Your task to perform on an android device: open chrome privacy settings Image 0: 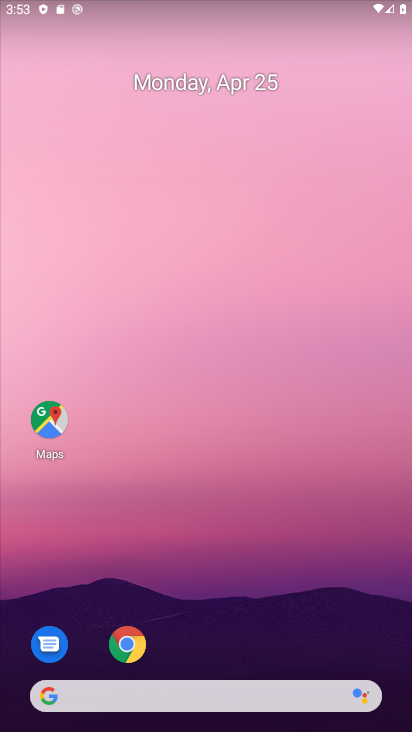
Step 0: click (123, 636)
Your task to perform on an android device: open chrome privacy settings Image 1: 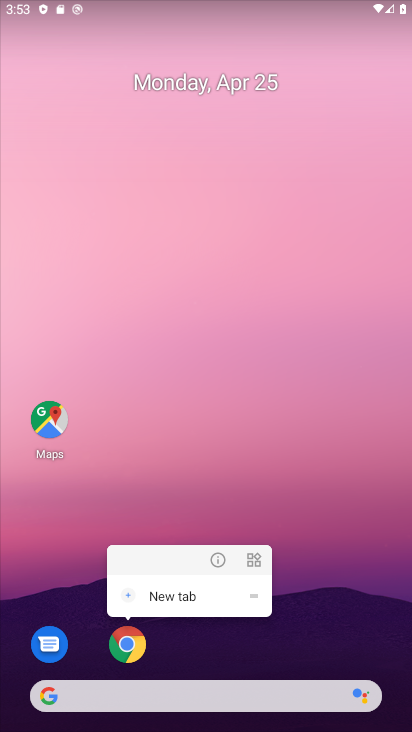
Step 1: click (134, 648)
Your task to perform on an android device: open chrome privacy settings Image 2: 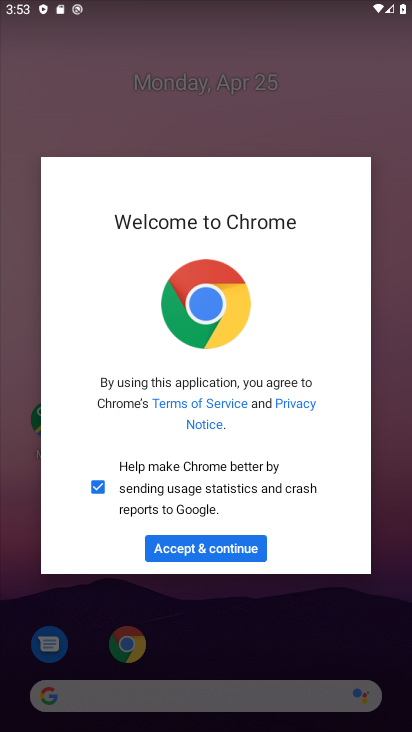
Step 2: click (214, 559)
Your task to perform on an android device: open chrome privacy settings Image 3: 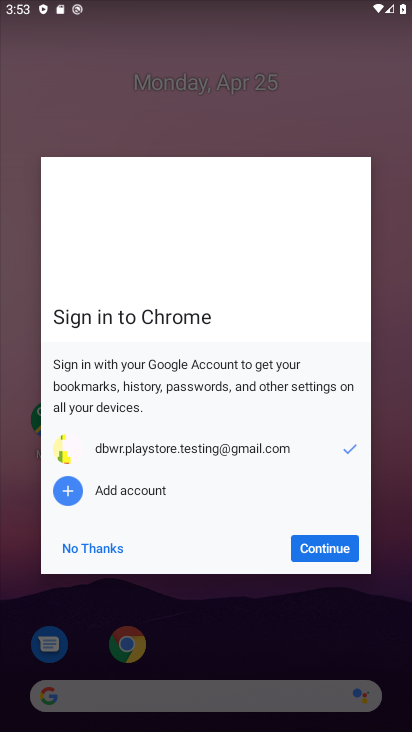
Step 3: click (316, 546)
Your task to perform on an android device: open chrome privacy settings Image 4: 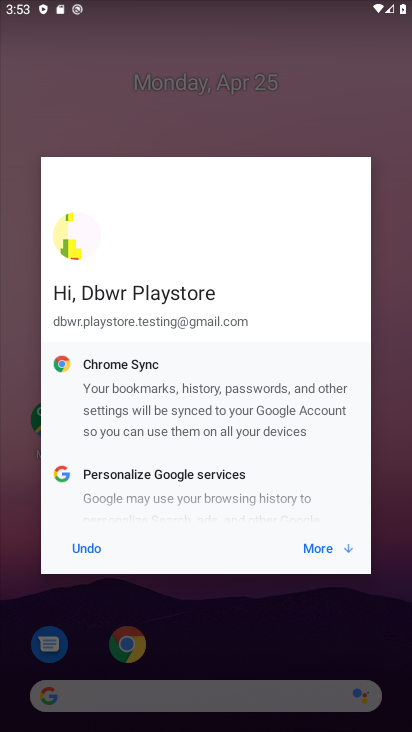
Step 4: click (316, 546)
Your task to perform on an android device: open chrome privacy settings Image 5: 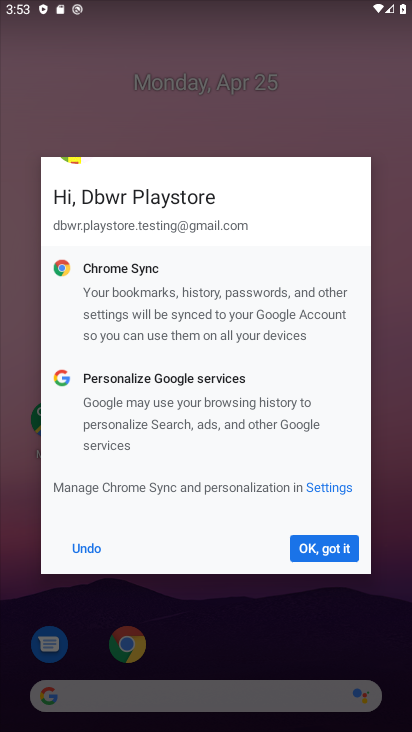
Step 5: click (316, 546)
Your task to perform on an android device: open chrome privacy settings Image 6: 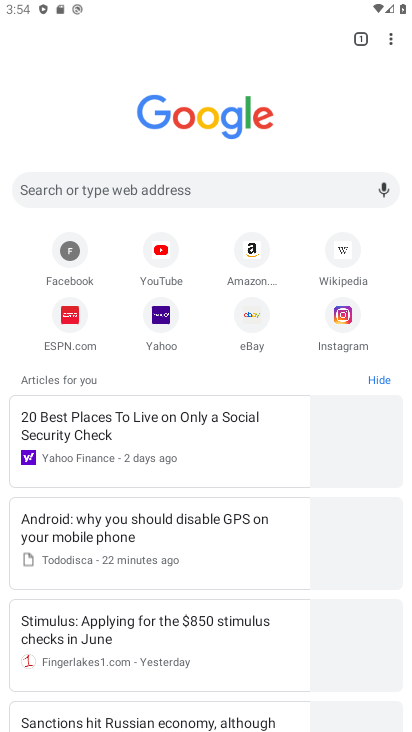
Step 6: click (389, 39)
Your task to perform on an android device: open chrome privacy settings Image 7: 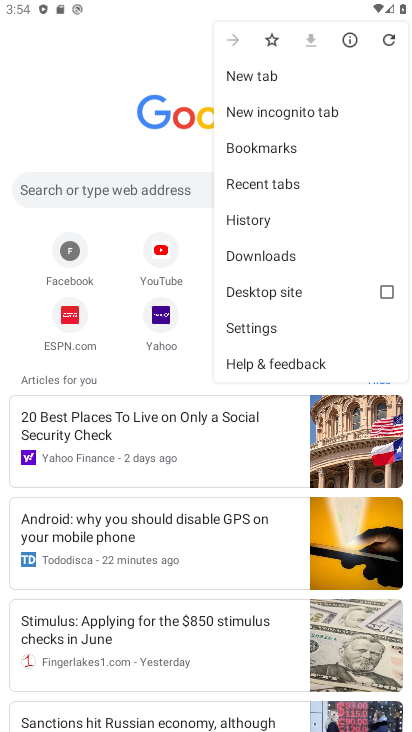
Step 7: click (259, 329)
Your task to perform on an android device: open chrome privacy settings Image 8: 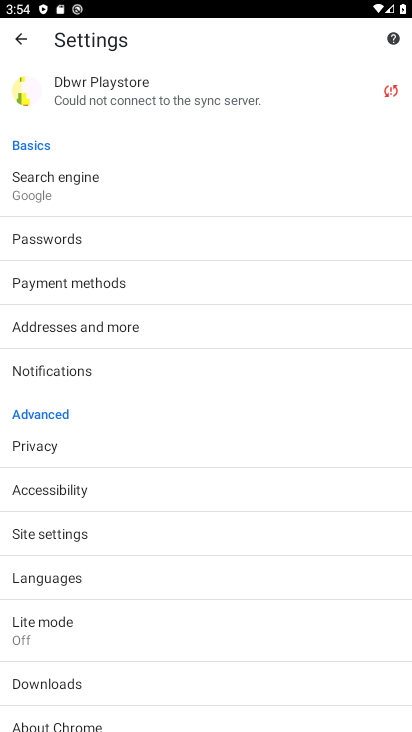
Step 8: click (67, 441)
Your task to perform on an android device: open chrome privacy settings Image 9: 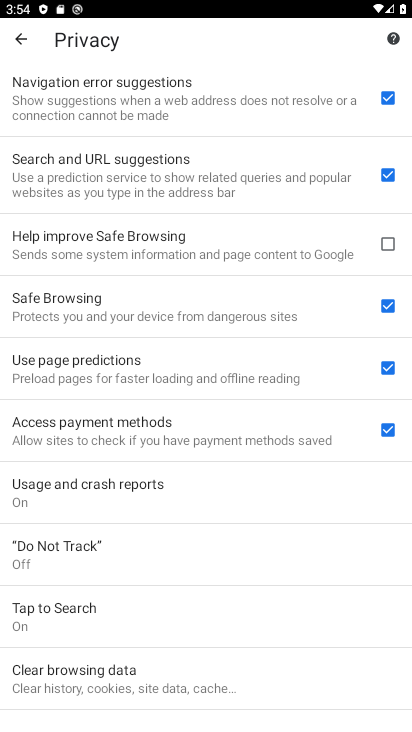
Step 9: task complete